Your task to perform on an android device: Open the Play Movies app and select the watchlist tab. Image 0: 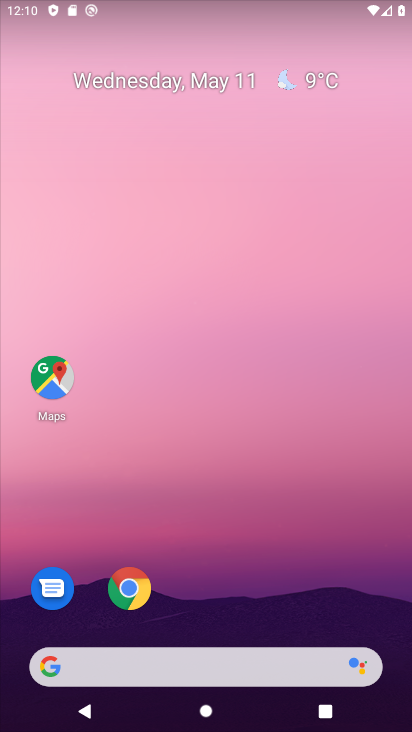
Step 0: click (136, 598)
Your task to perform on an android device: Open the Play Movies app and select the watchlist tab. Image 1: 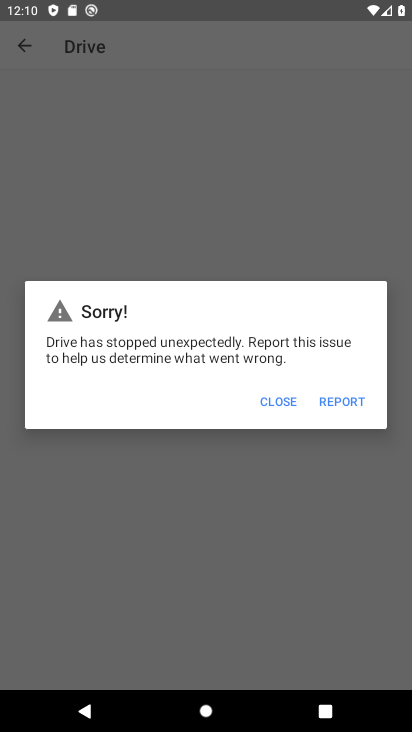
Step 1: press home button
Your task to perform on an android device: Open the Play Movies app and select the watchlist tab. Image 2: 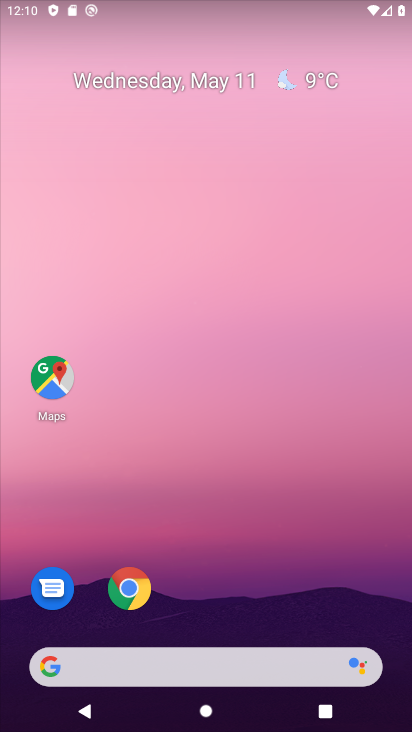
Step 2: drag from (372, 450) to (324, 10)
Your task to perform on an android device: Open the Play Movies app and select the watchlist tab. Image 3: 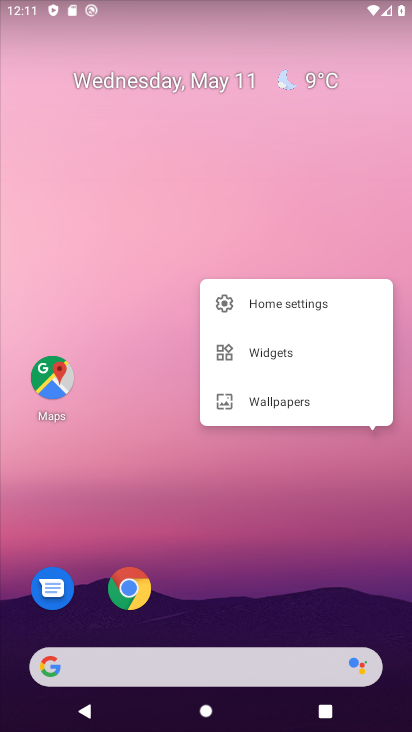
Step 3: drag from (312, 597) to (318, 37)
Your task to perform on an android device: Open the Play Movies app and select the watchlist tab. Image 4: 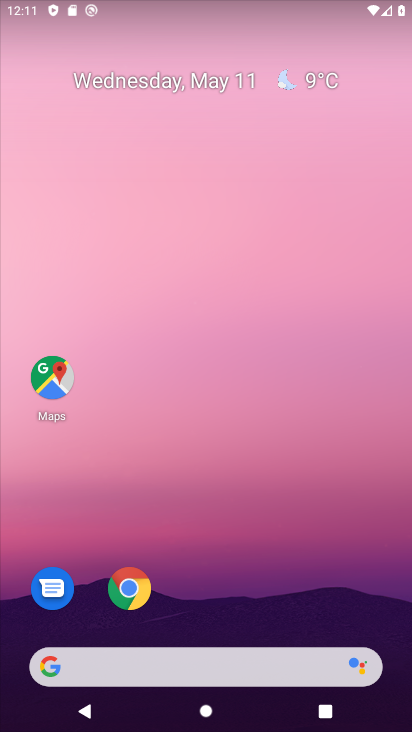
Step 4: drag from (336, 247) to (338, 19)
Your task to perform on an android device: Open the Play Movies app and select the watchlist tab. Image 5: 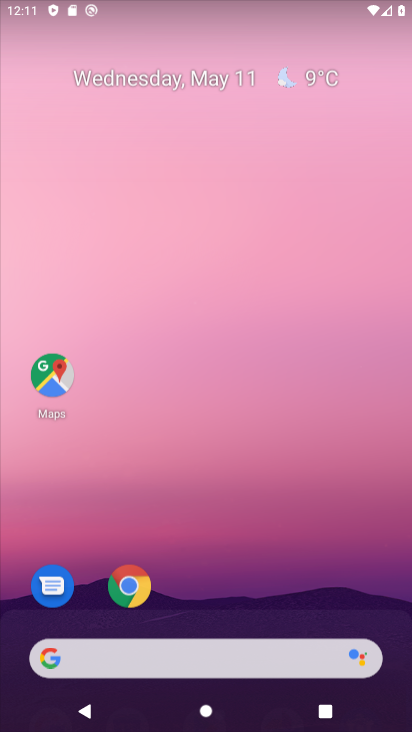
Step 5: drag from (366, 543) to (348, 0)
Your task to perform on an android device: Open the Play Movies app and select the watchlist tab. Image 6: 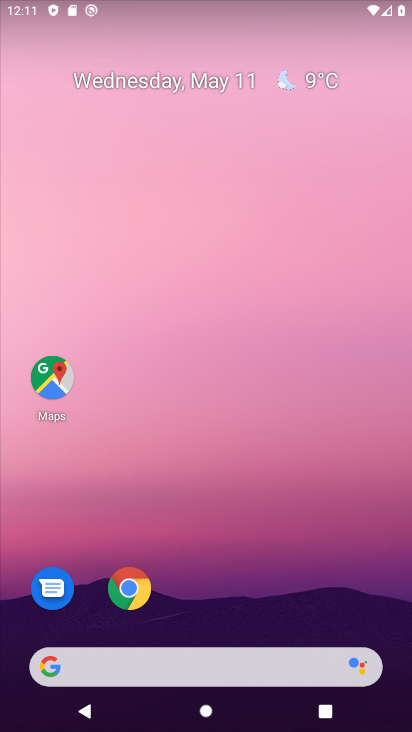
Step 6: drag from (358, 558) to (347, 16)
Your task to perform on an android device: Open the Play Movies app and select the watchlist tab. Image 7: 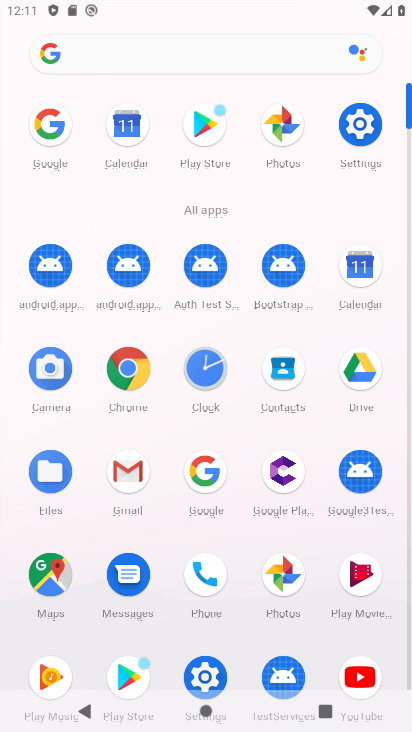
Step 7: click (353, 576)
Your task to perform on an android device: Open the Play Movies app and select the watchlist tab. Image 8: 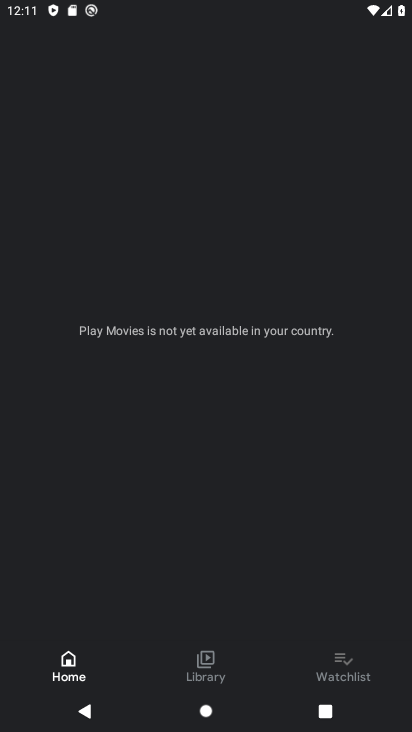
Step 8: click (334, 683)
Your task to perform on an android device: Open the Play Movies app and select the watchlist tab. Image 9: 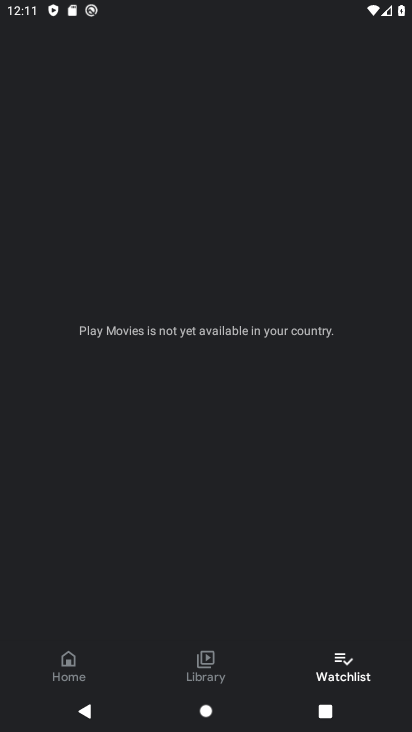
Step 9: task complete